Your task to perform on an android device: Open Youtube and go to the subscriptions tab Image 0: 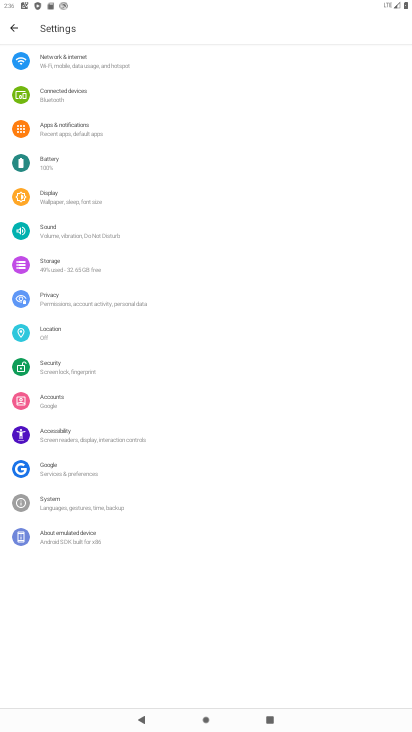
Step 0: drag from (191, 564) to (287, 168)
Your task to perform on an android device: Open Youtube and go to the subscriptions tab Image 1: 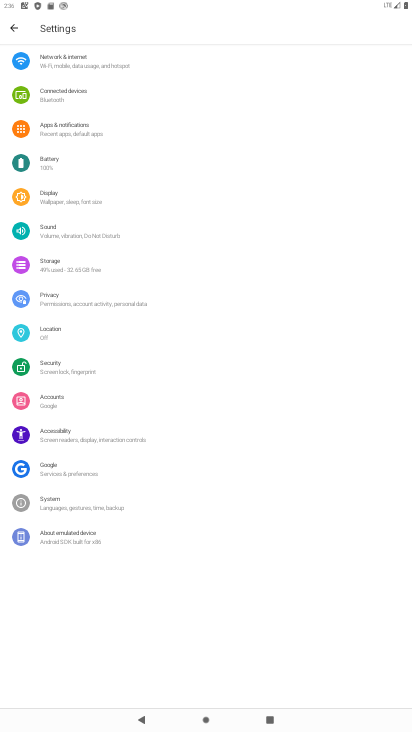
Step 1: drag from (229, 522) to (292, 103)
Your task to perform on an android device: Open Youtube and go to the subscriptions tab Image 2: 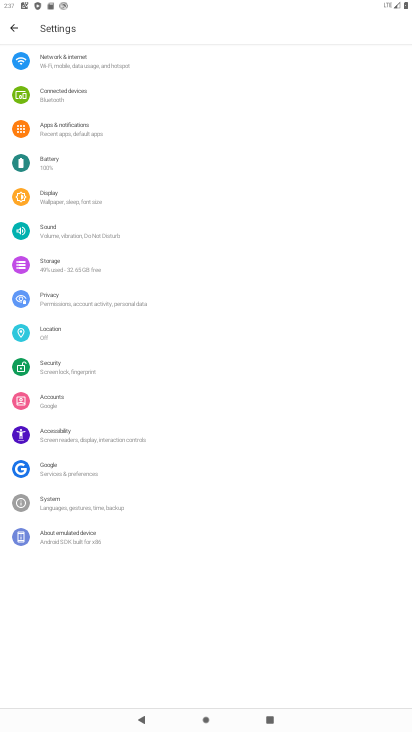
Step 2: drag from (150, 133) to (281, 716)
Your task to perform on an android device: Open Youtube and go to the subscriptions tab Image 3: 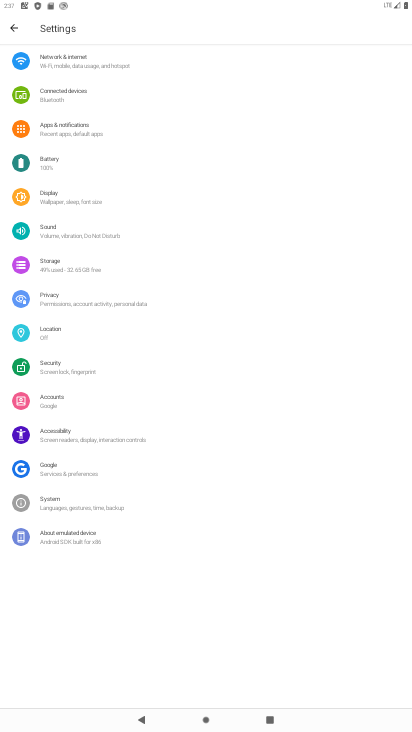
Step 3: press home button
Your task to perform on an android device: Open Youtube and go to the subscriptions tab Image 4: 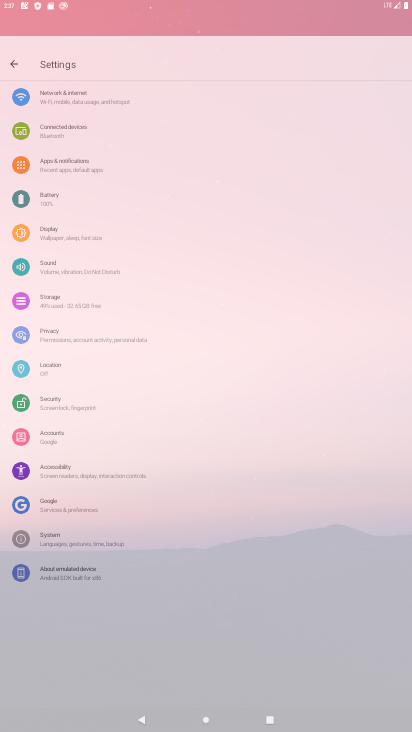
Step 4: drag from (147, 658) to (261, 139)
Your task to perform on an android device: Open Youtube and go to the subscriptions tab Image 5: 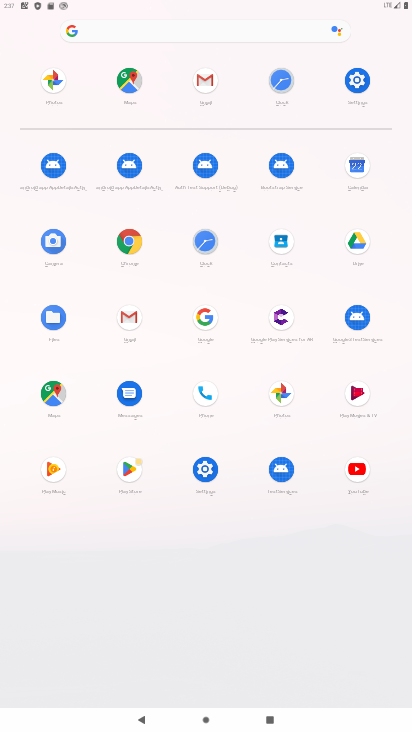
Step 5: click (359, 460)
Your task to perform on an android device: Open Youtube and go to the subscriptions tab Image 6: 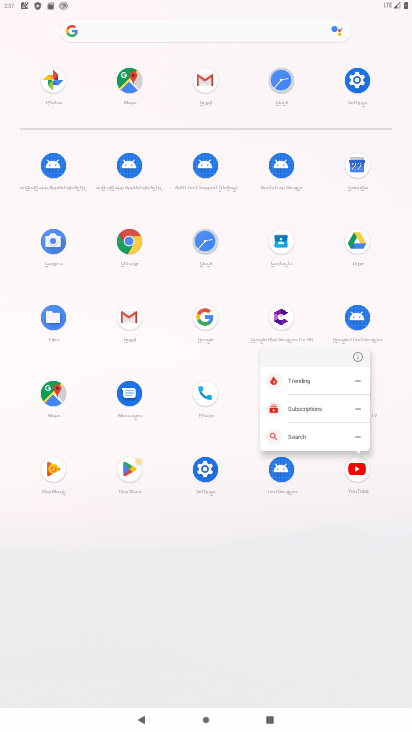
Step 6: click (353, 355)
Your task to perform on an android device: Open Youtube and go to the subscriptions tab Image 7: 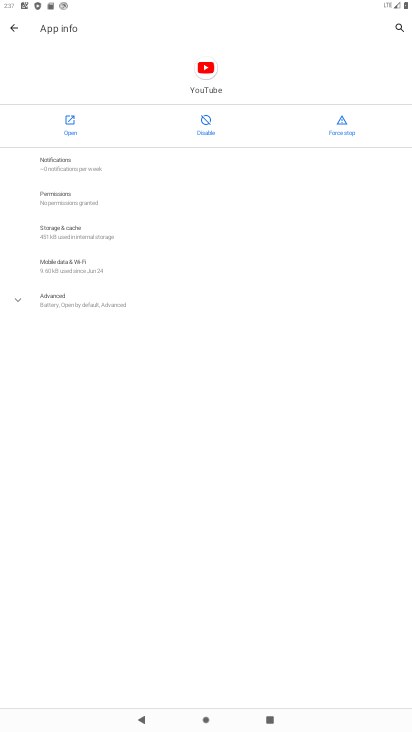
Step 7: click (58, 121)
Your task to perform on an android device: Open Youtube and go to the subscriptions tab Image 8: 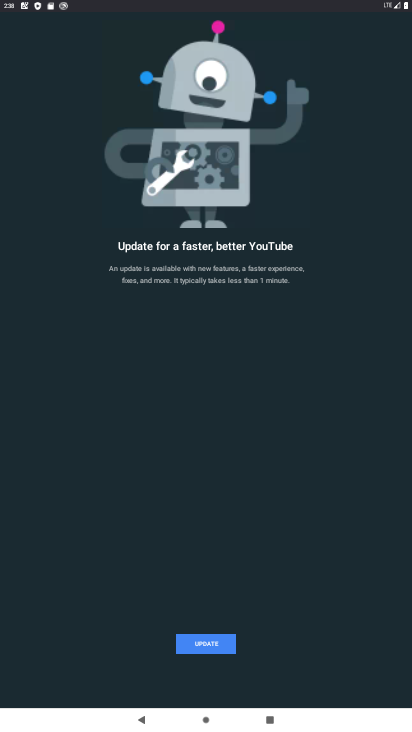
Step 8: drag from (332, 622) to (362, 242)
Your task to perform on an android device: Open Youtube and go to the subscriptions tab Image 9: 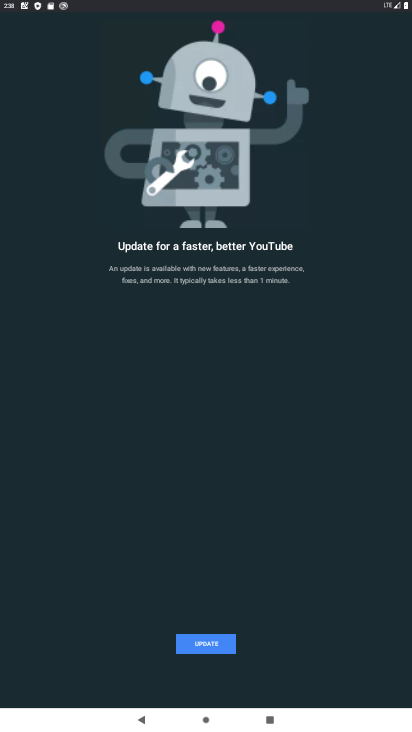
Step 9: drag from (311, 463) to (406, 110)
Your task to perform on an android device: Open Youtube and go to the subscriptions tab Image 10: 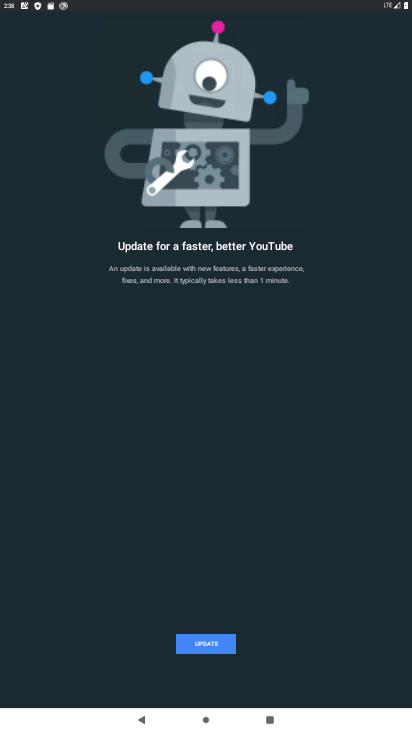
Step 10: drag from (283, 480) to (314, 249)
Your task to perform on an android device: Open Youtube and go to the subscriptions tab Image 11: 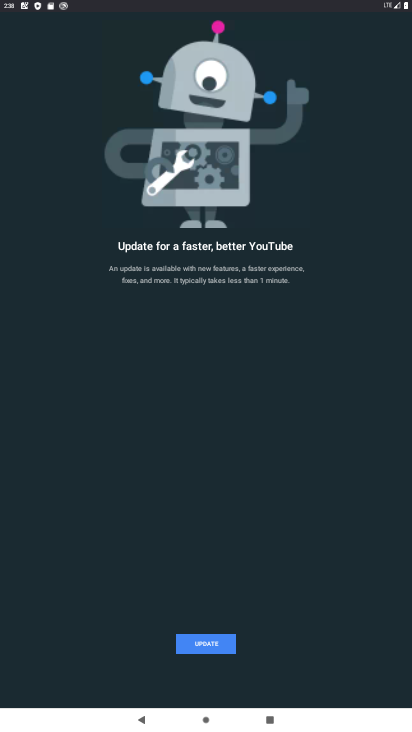
Step 11: press home button
Your task to perform on an android device: Open Youtube and go to the subscriptions tab Image 12: 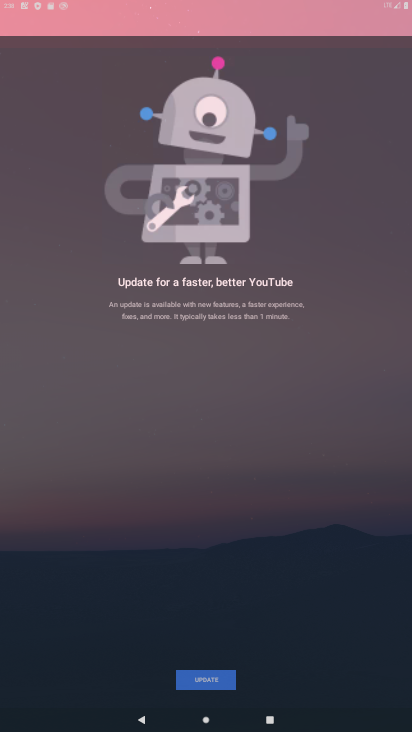
Step 12: drag from (232, 674) to (337, 62)
Your task to perform on an android device: Open Youtube and go to the subscriptions tab Image 13: 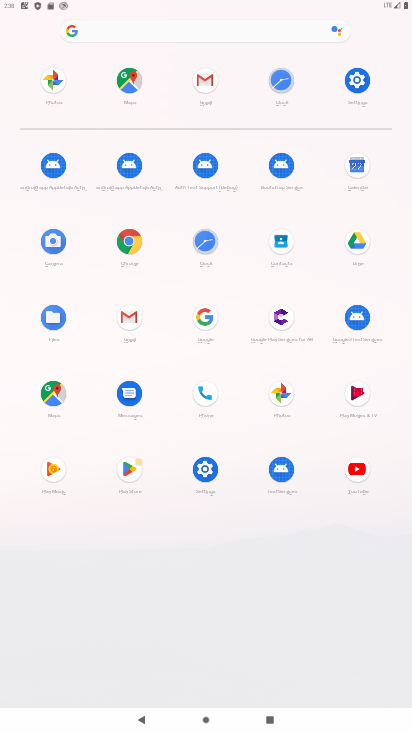
Step 13: drag from (189, 531) to (284, 235)
Your task to perform on an android device: Open Youtube and go to the subscriptions tab Image 14: 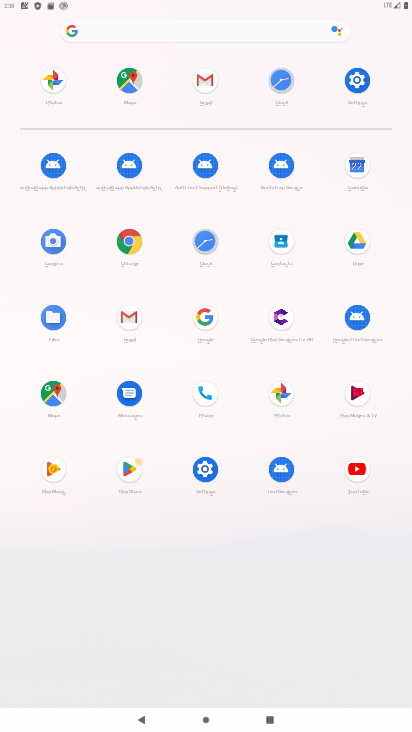
Step 14: click (346, 476)
Your task to perform on an android device: Open Youtube and go to the subscriptions tab Image 15: 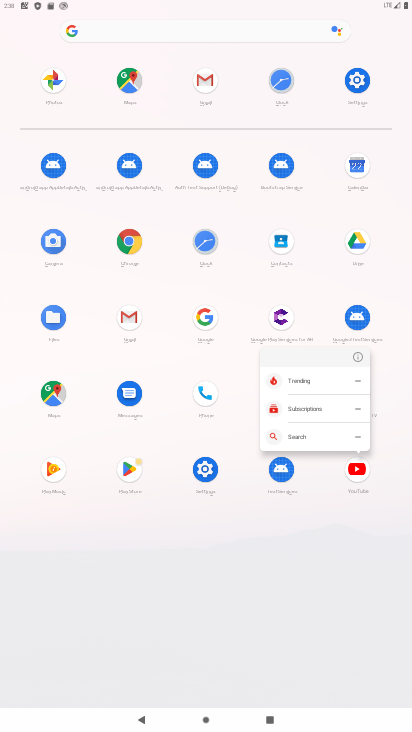
Step 15: click (353, 351)
Your task to perform on an android device: Open Youtube and go to the subscriptions tab Image 16: 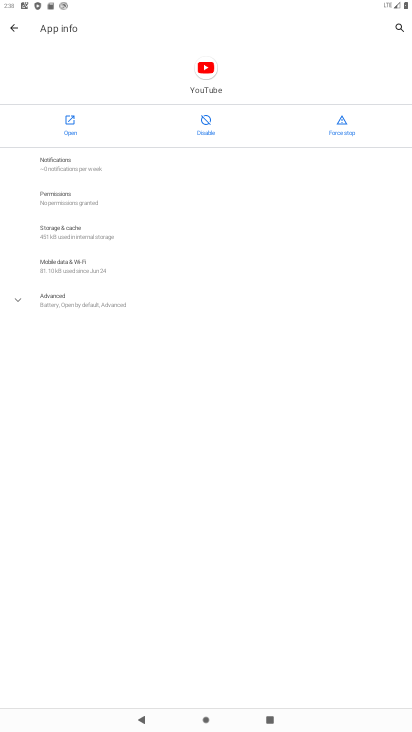
Step 16: click (59, 132)
Your task to perform on an android device: Open Youtube and go to the subscriptions tab Image 17: 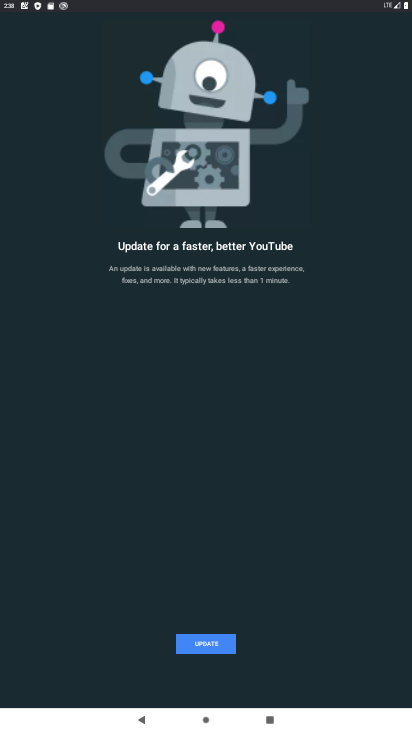
Step 17: task complete